Your task to perform on an android device: Open calendar and show me the second week of next month Image 0: 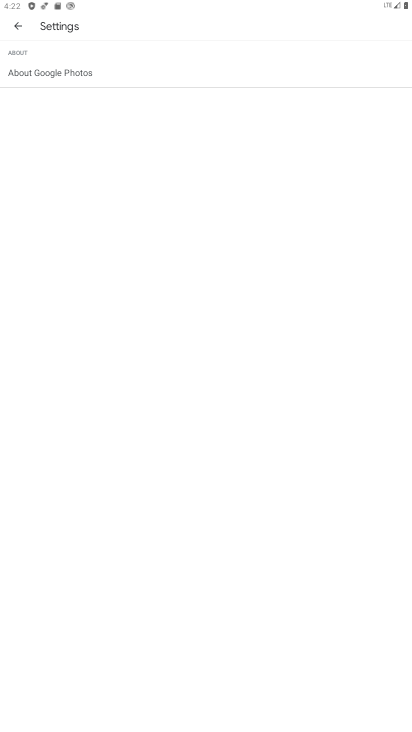
Step 0: press home button
Your task to perform on an android device: Open calendar and show me the second week of next month Image 1: 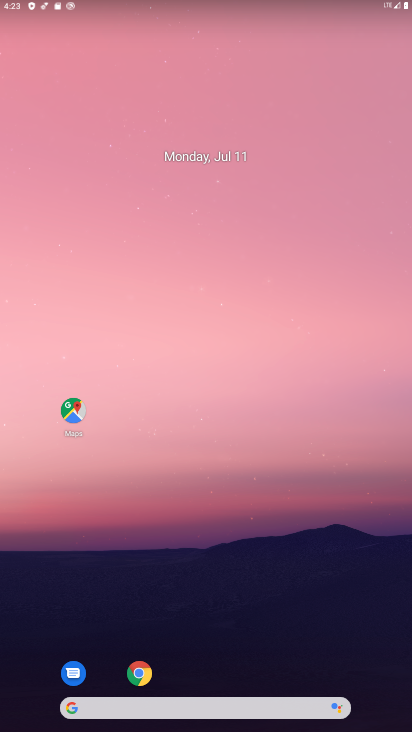
Step 1: drag from (395, 610) to (353, 107)
Your task to perform on an android device: Open calendar and show me the second week of next month Image 2: 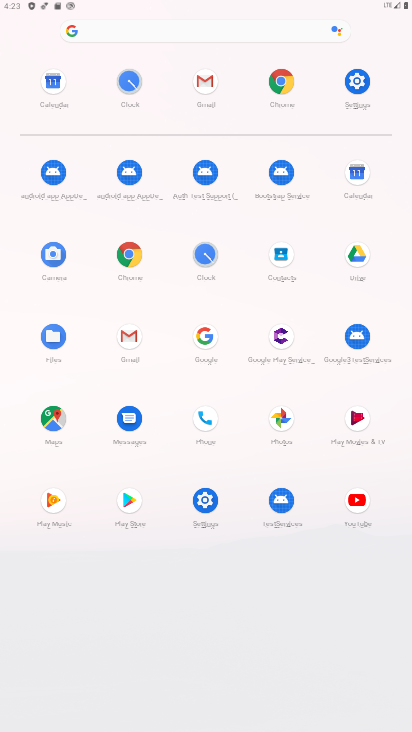
Step 2: click (360, 182)
Your task to perform on an android device: Open calendar and show me the second week of next month Image 3: 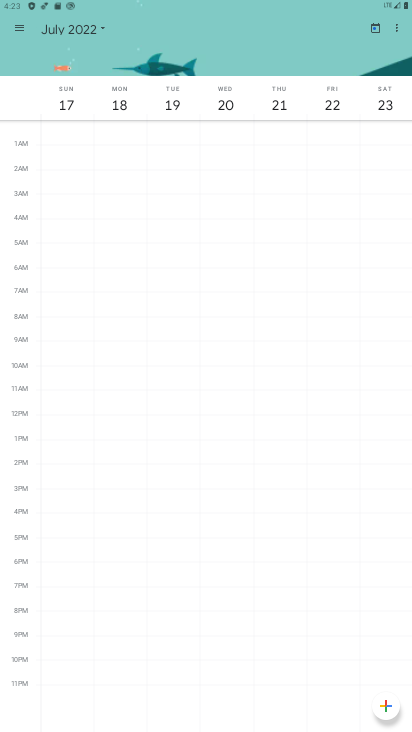
Step 3: click (88, 27)
Your task to perform on an android device: Open calendar and show me the second week of next month Image 4: 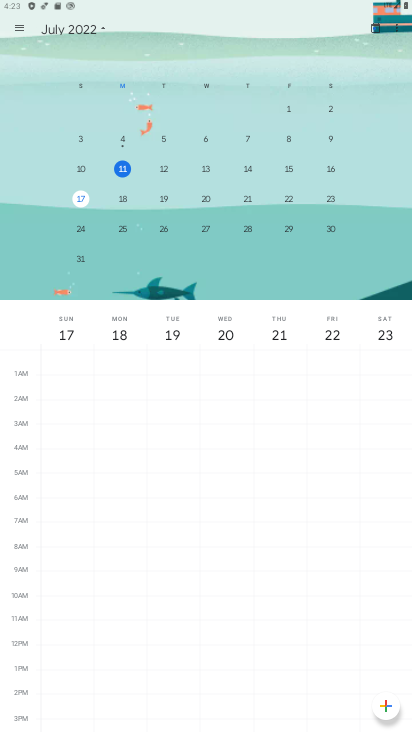
Step 4: drag from (363, 163) to (3, 180)
Your task to perform on an android device: Open calendar and show me the second week of next month Image 5: 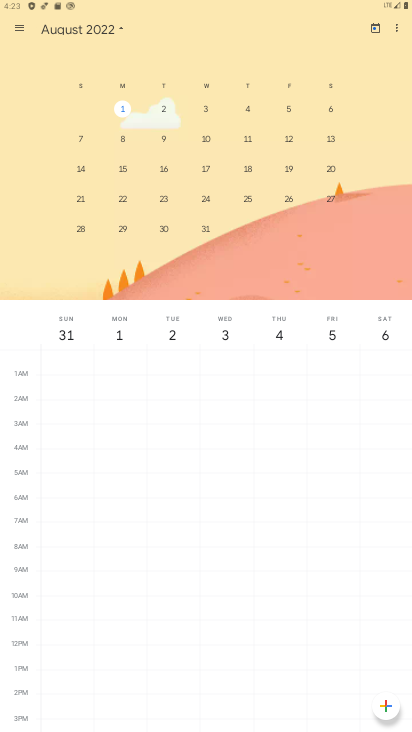
Step 5: click (166, 136)
Your task to perform on an android device: Open calendar and show me the second week of next month Image 6: 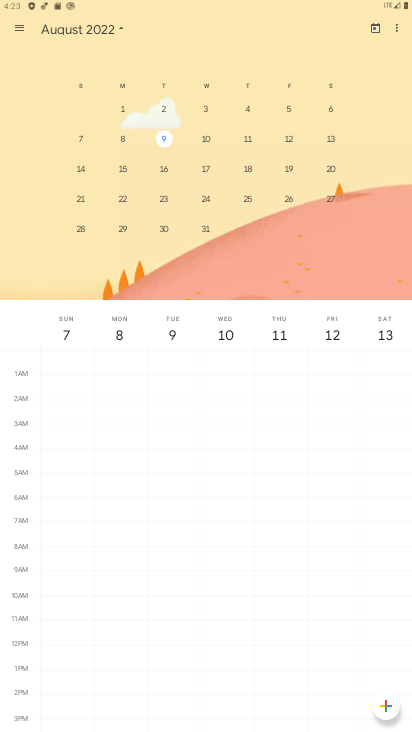
Step 6: task complete